Your task to perform on an android device: Open sound settings Image 0: 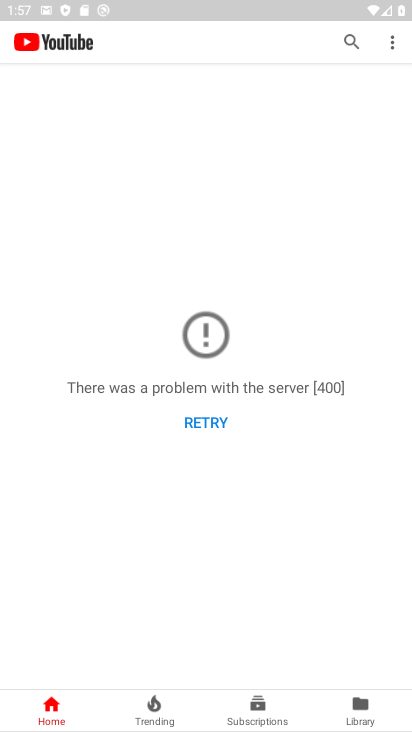
Step 0: press home button
Your task to perform on an android device: Open sound settings Image 1: 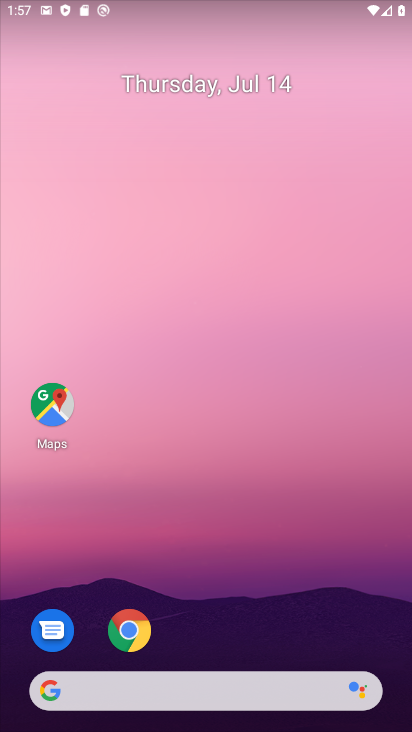
Step 1: drag from (210, 657) to (244, 185)
Your task to perform on an android device: Open sound settings Image 2: 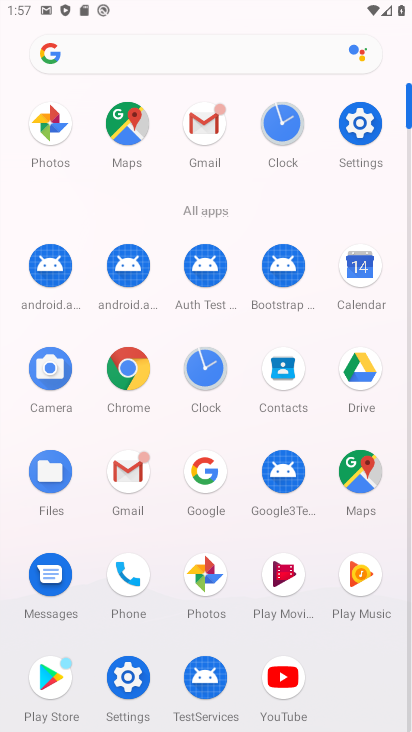
Step 2: click (133, 678)
Your task to perform on an android device: Open sound settings Image 3: 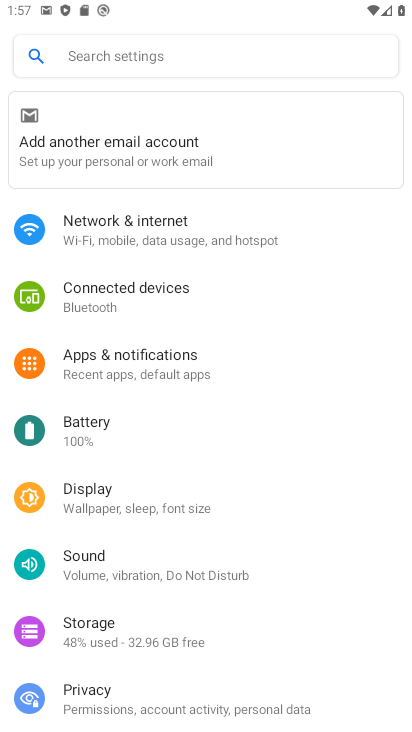
Step 3: click (100, 572)
Your task to perform on an android device: Open sound settings Image 4: 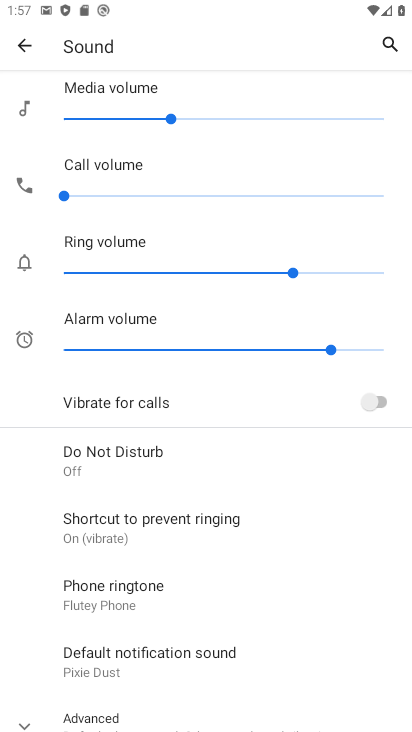
Step 4: task complete